Your task to perform on an android device: turn off notifications in google photos Image 0: 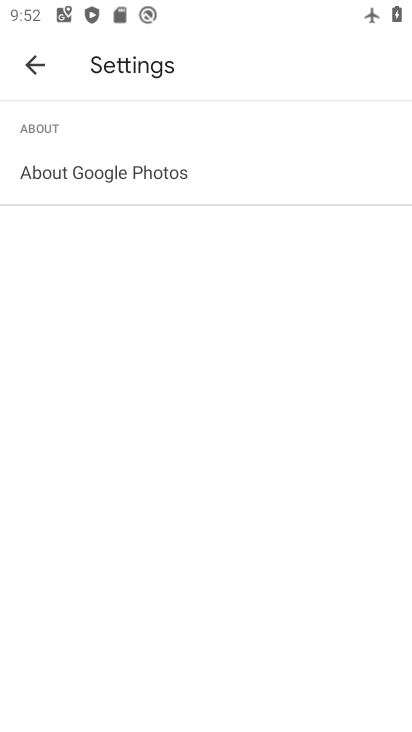
Step 0: press home button
Your task to perform on an android device: turn off notifications in google photos Image 1: 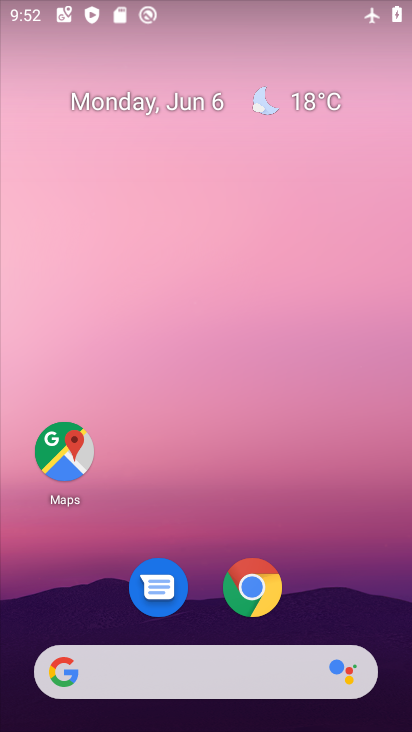
Step 1: drag from (336, 542) to (293, 84)
Your task to perform on an android device: turn off notifications in google photos Image 2: 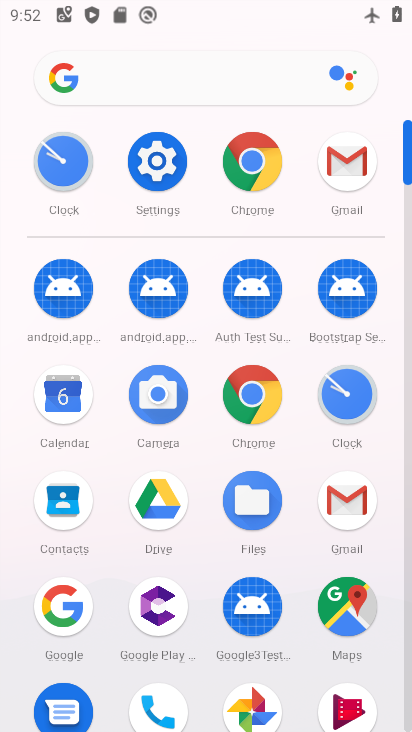
Step 2: click (243, 713)
Your task to perform on an android device: turn off notifications in google photos Image 3: 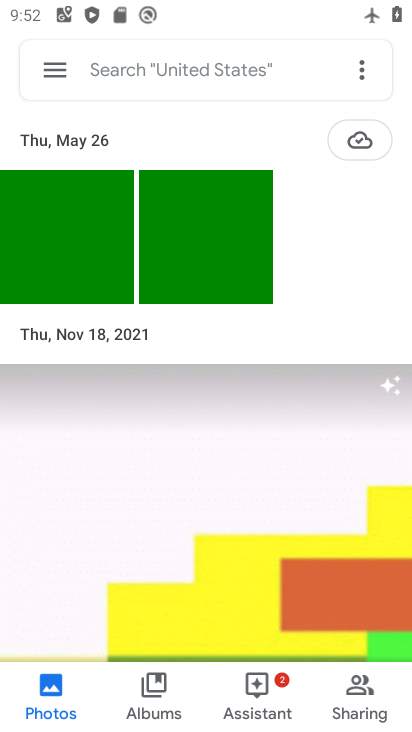
Step 3: click (46, 73)
Your task to perform on an android device: turn off notifications in google photos Image 4: 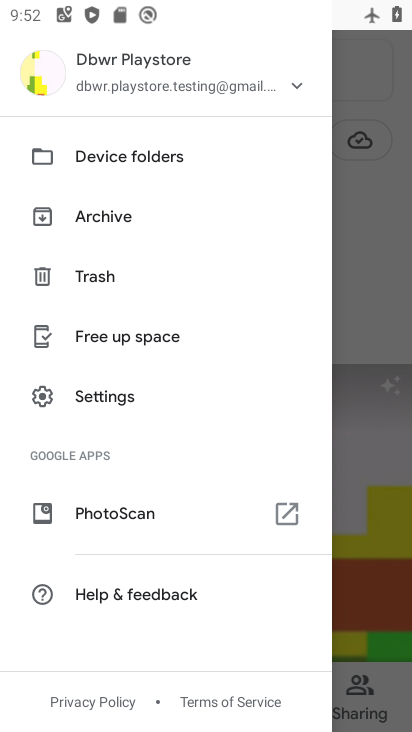
Step 4: click (124, 396)
Your task to perform on an android device: turn off notifications in google photos Image 5: 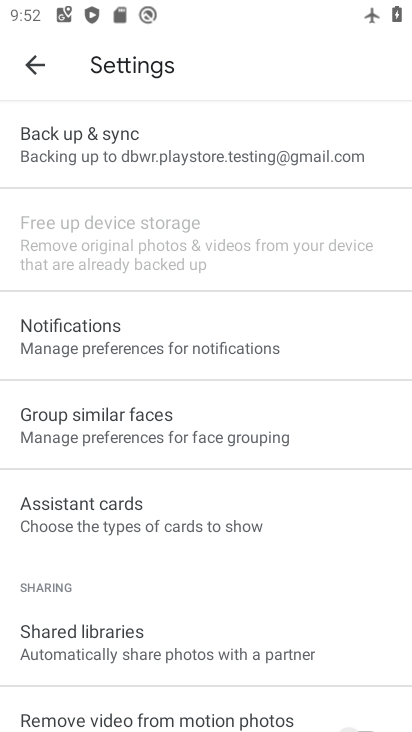
Step 5: click (130, 343)
Your task to perform on an android device: turn off notifications in google photos Image 6: 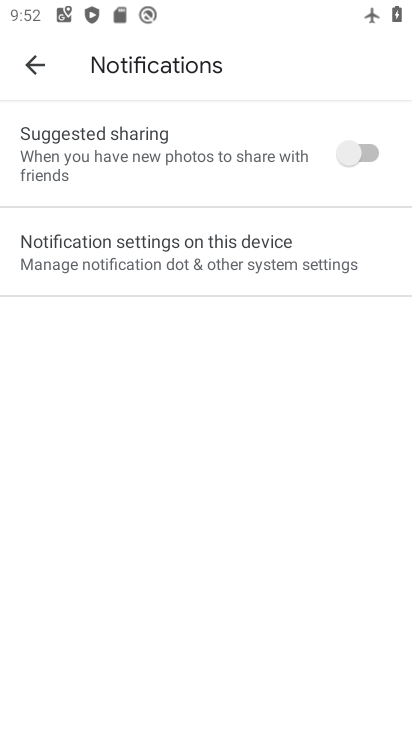
Step 6: click (210, 246)
Your task to perform on an android device: turn off notifications in google photos Image 7: 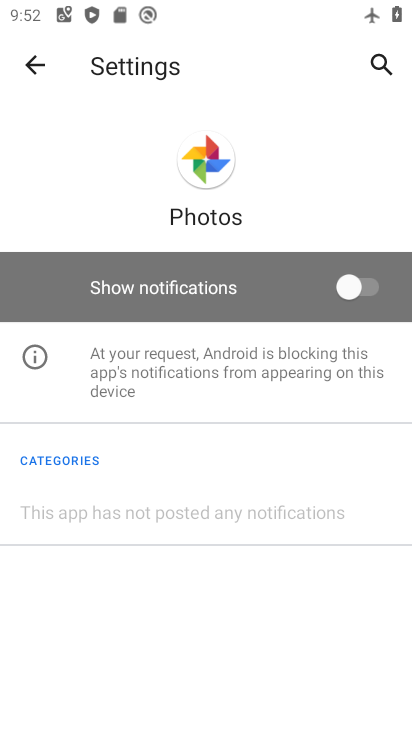
Step 7: task complete